Your task to perform on an android device: Open Maps and search for coffee Image 0: 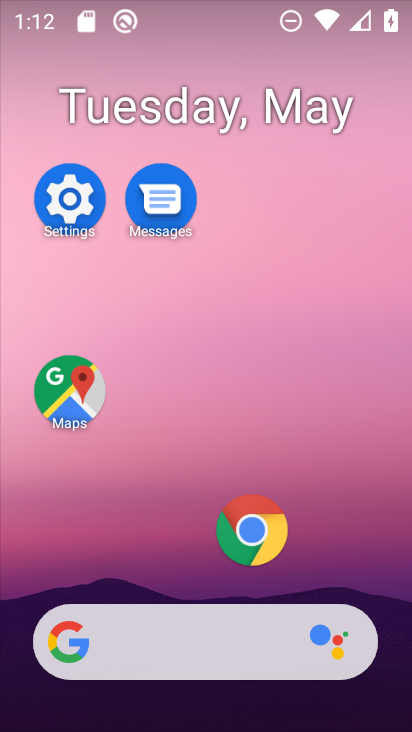
Step 0: drag from (166, 500) to (321, 136)
Your task to perform on an android device: Open Maps and search for coffee Image 1: 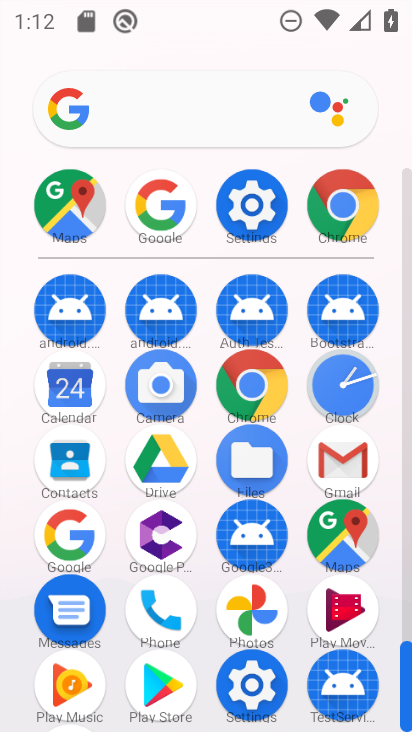
Step 1: click (255, 396)
Your task to perform on an android device: Open Maps and search for coffee Image 2: 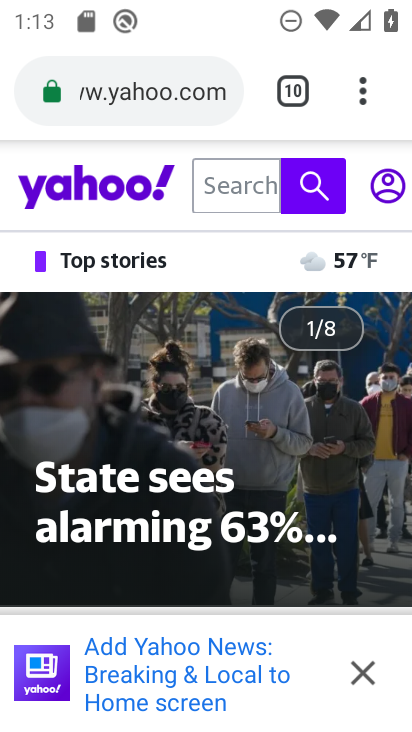
Step 2: press home button
Your task to perform on an android device: Open Maps and search for coffee Image 3: 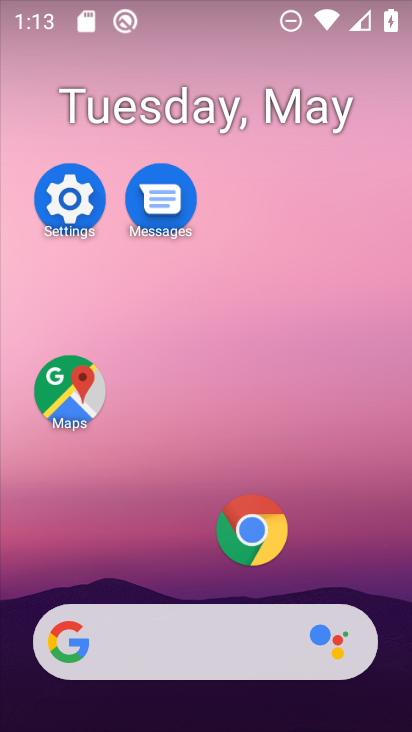
Step 3: drag from (156, 548) to (194, 120)
Your task to perform on an android device: Open Maps and search for coffee Image 4: 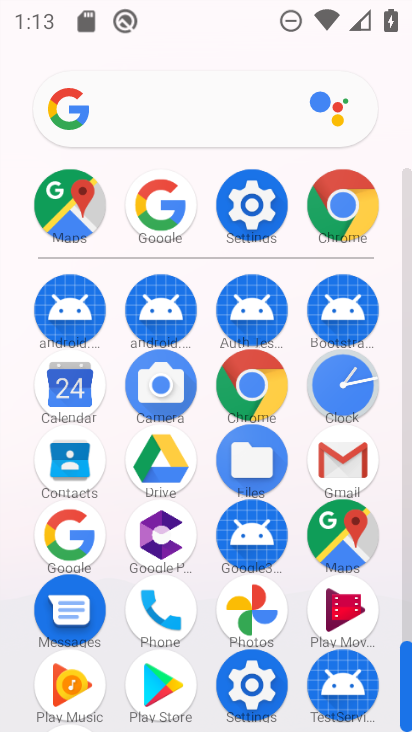
Step 4: click (347, 517)
Your task to perform on an android device: Open Maps and search for coffee Image 5: 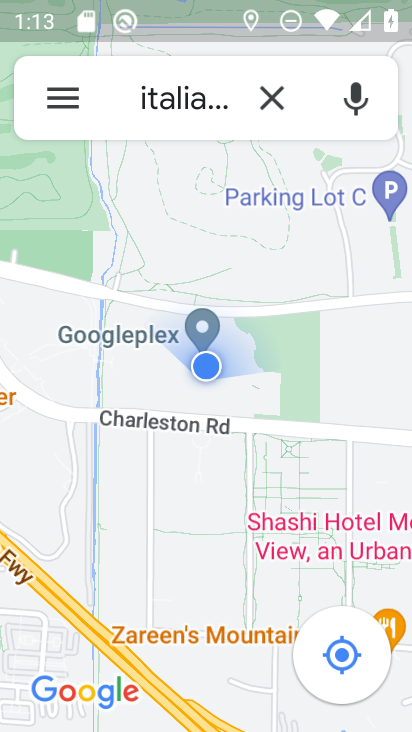
Step 5: click (272, 98)
Your task to perform on an android device: Open Maps and search for coffee Image 6: 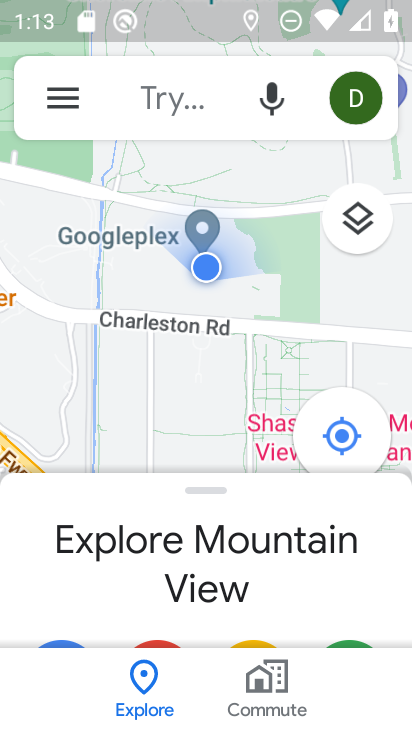
Step 6: click (179, 103)
Your task to perform on an android device: Open Maps and search for coffee Image 7: 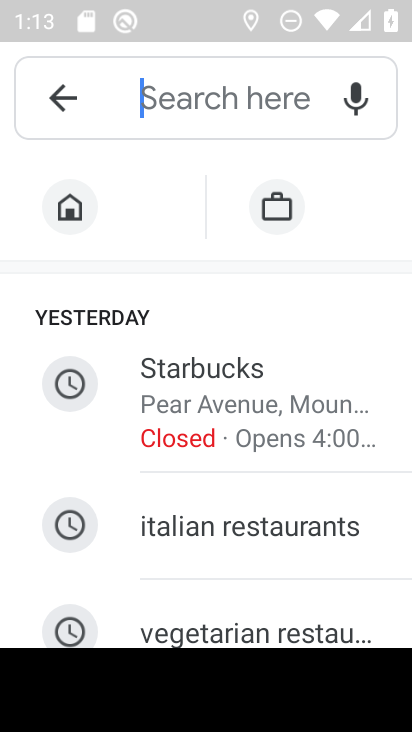
Step 7: type "coffee"
Your task to perform on an android device: Open Maps and search for coffee Image 8: 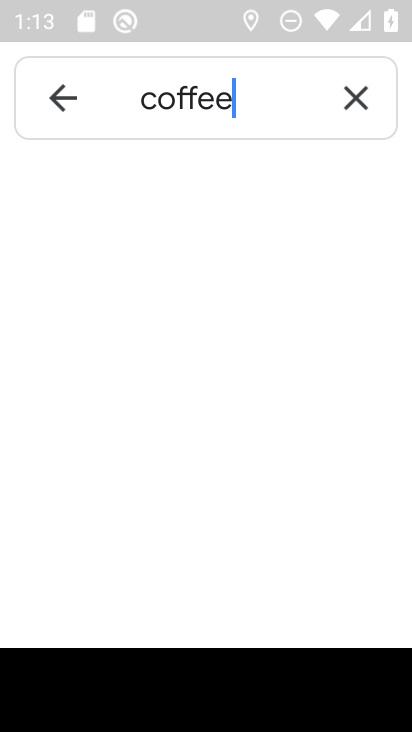
Step 8: type ""
Your task to perform on an android device: Open Maps and search for coffee Image 9: 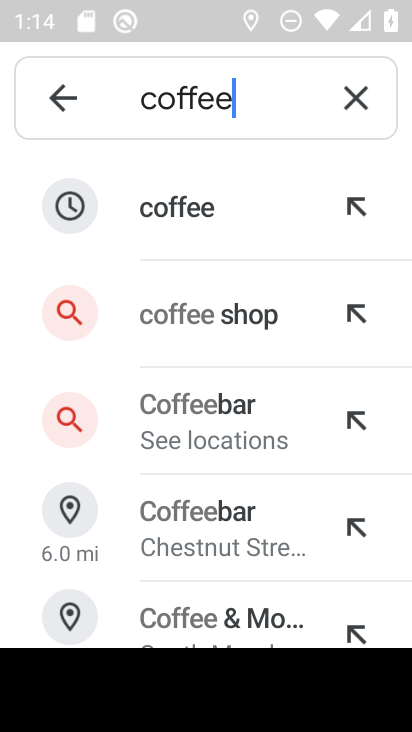
Step 9: click (226, 231)
Your task to perform on an android device: Open Maps and search for coffee Image 10: 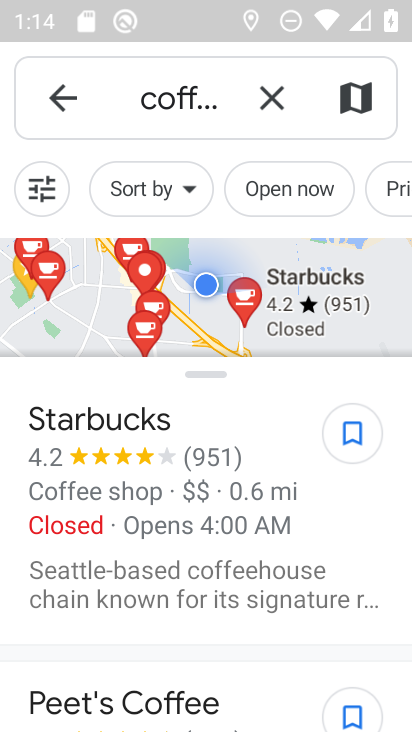
Step 10: task complete